Your task to perform on an android device: Open the calendar and show me this week's events Image 0: 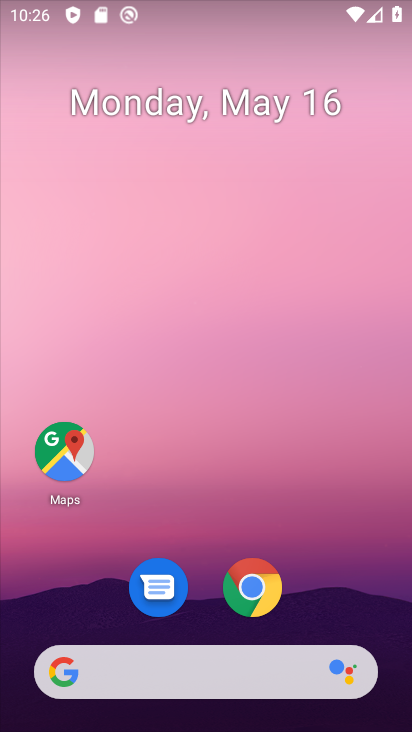
Step 0: drag from (339, 562) to (277, 27)
Your task to perform on an android device: Open the calendar and show me this week's events Image 1: 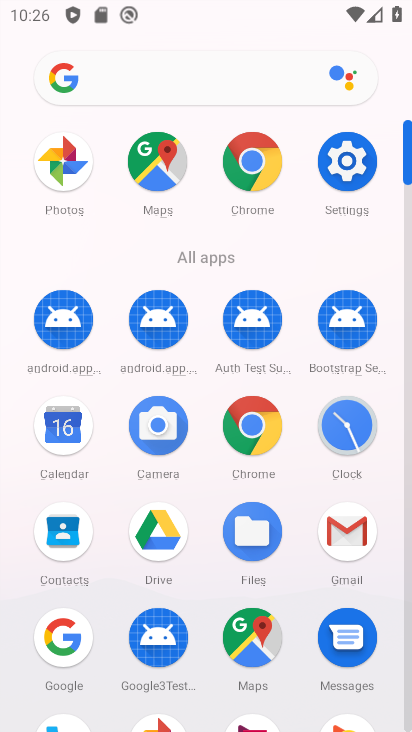
Step 1: drag from (9, 508) to (18, 198)
Your task to perform on an android device: Open the calendar and show me this week's events Image 2: 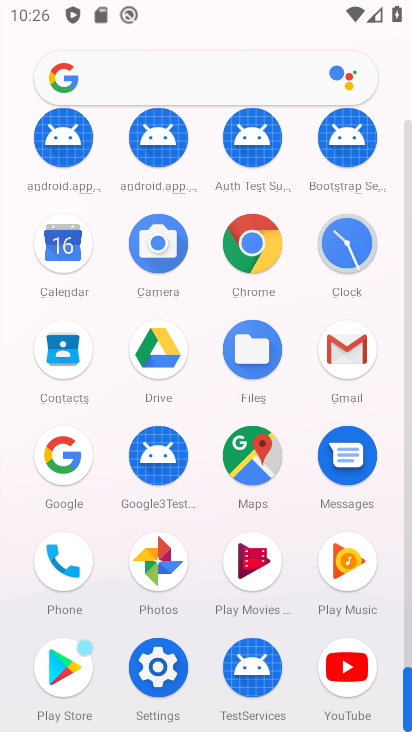
Step 2: click (65, 237)
Your task to perform on an android device: Open the calendar and show me this week's events Image 3: 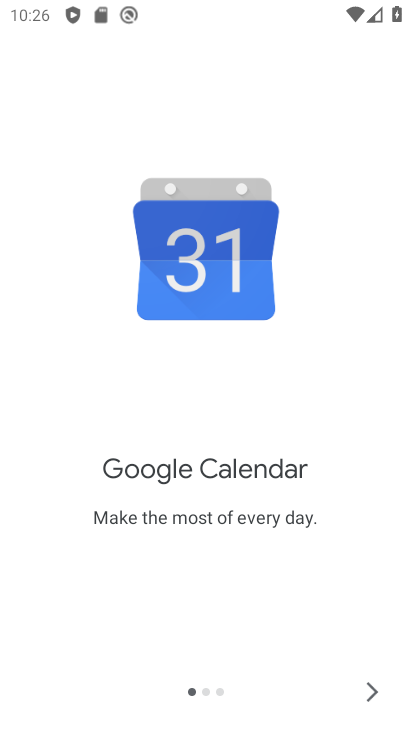
Step 3: click (369, 690)
Your task to perform on an android device: Open the calendar and show me this week's events Image 4: 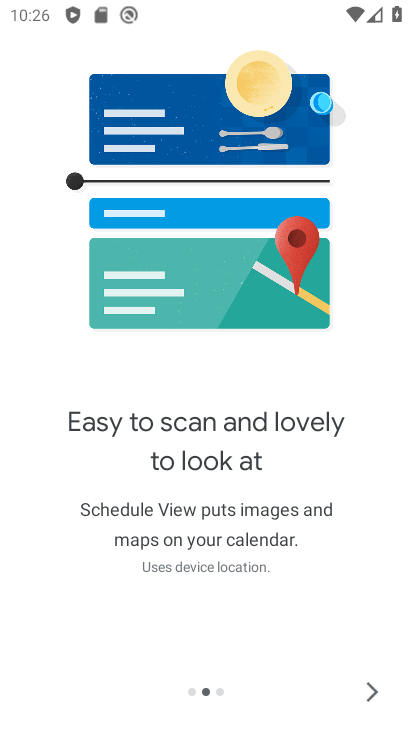
Step 4: click (368, 690)
Your task to perform on an android device: Open the calendar and show me this week's events Image 5: 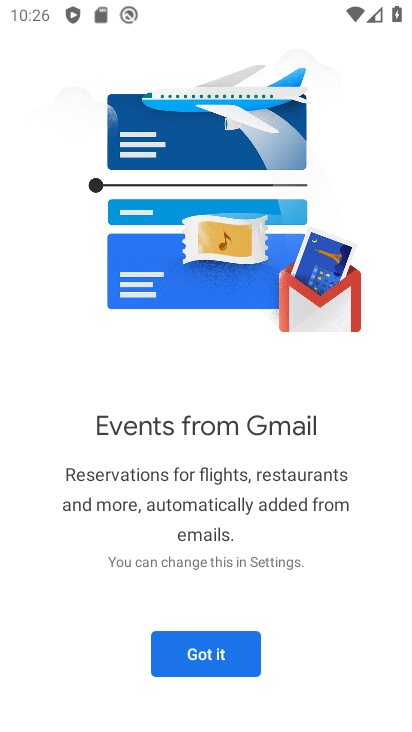
Step 5: click (218, 661)
Your task to perform on an android device: Open the calendar and show me this week's events Image 6: 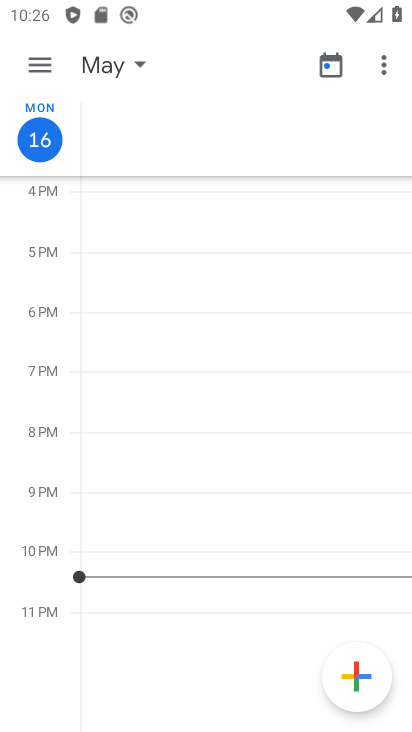
Step 6: click (40, 64)
Your task to perform on an android device: Open the calendar and show me this week's events Image 7: 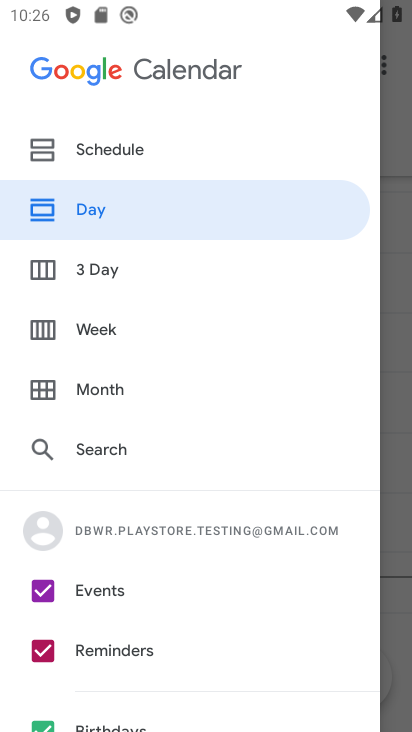
Step 7: click (96, 320)
Your task to perform on an android device: Open the calendar and show me this week's events Image 8: 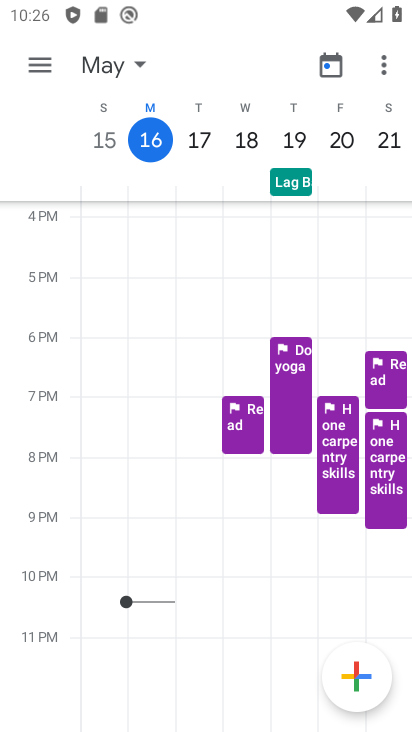
Step 8: task complete